Your task to perform on an android device: Do I have any events tomorrow? Image 0: 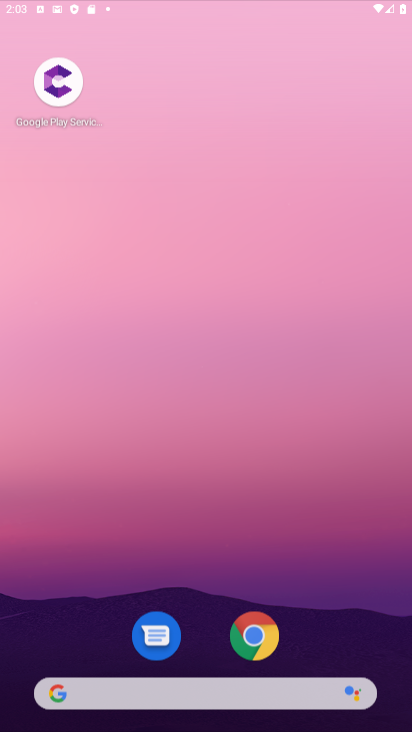
Step 0: drag from (224, 716) to (238, 28)
Your task to perform on an android device: Do I have any events tomorrow? Image 1: 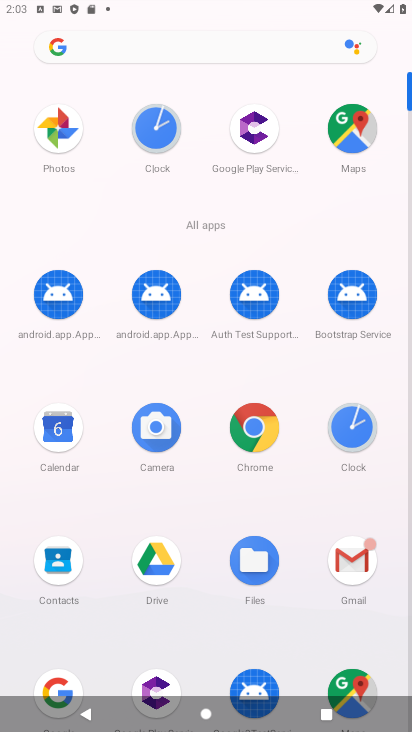
Step 1: click (362, 547)
Your task to perform on an android device: Do I have any events tomorrow? Image 2: 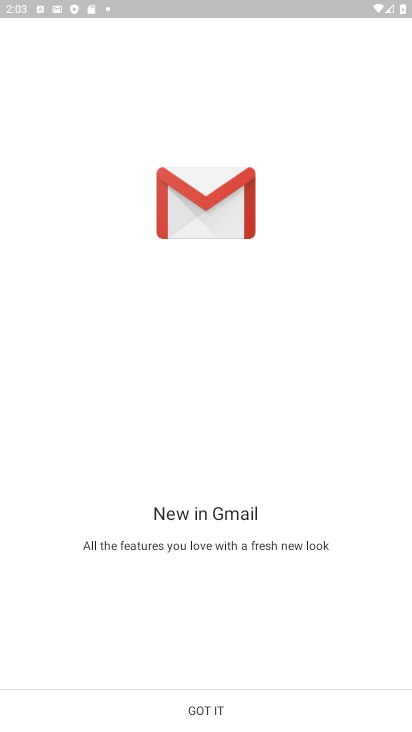
Step 2: click (217, 710)
Your task to perform on an android device: Do I have any events tomorrow? Image 3: 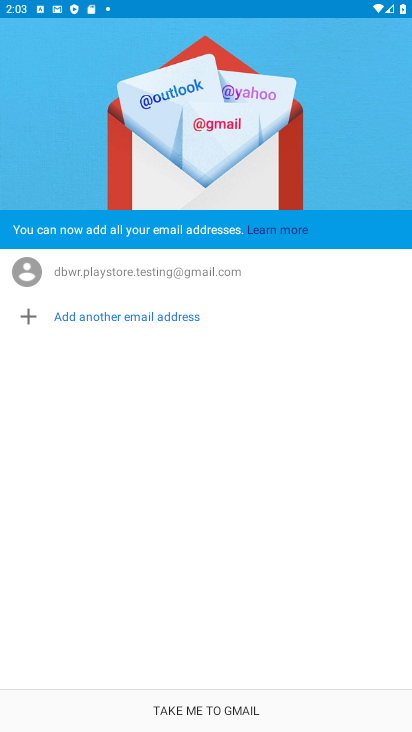
Step 3: click (217, 710)
Your task to perform on an android device: Do I have any events tomorrow? Image 4: 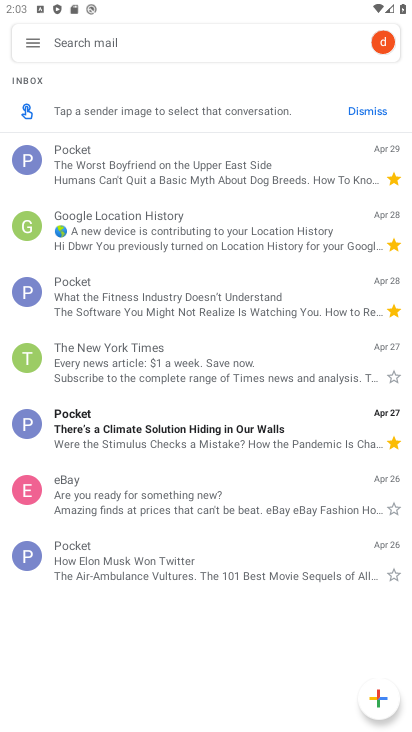
Step 4: press home button
Your task to perform on an android device: Do I have any events tomorrow? Image 5: 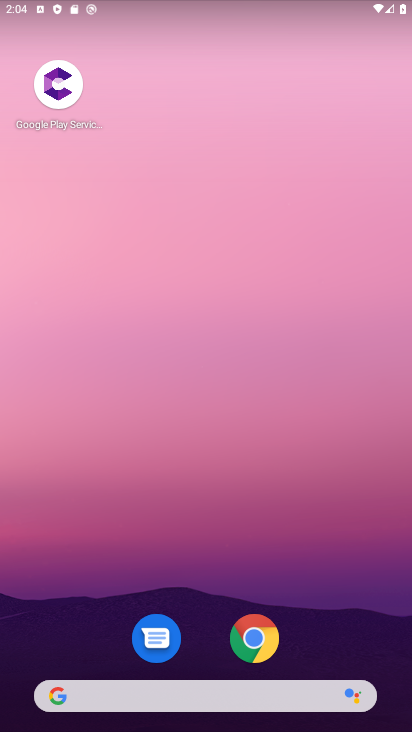
Step 5: drag from (191, 717) to (244, 34)
Your task to perform on an android device: Do I have any events tomorrow? Image 6: 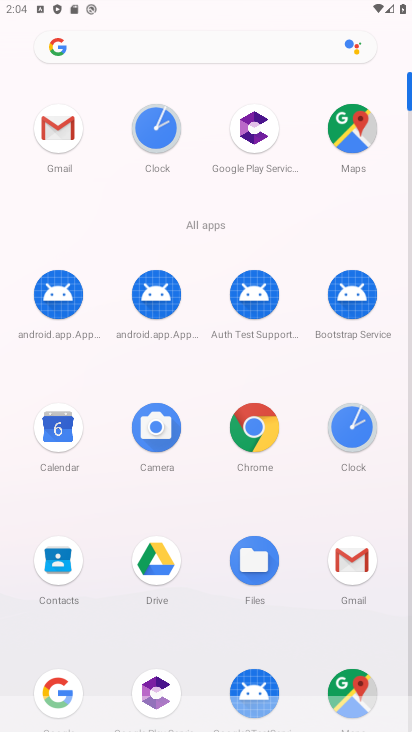
Step 6: click (55, 432)
Your task to perform on an android device: Do I have any events tomorrow? Image 7: 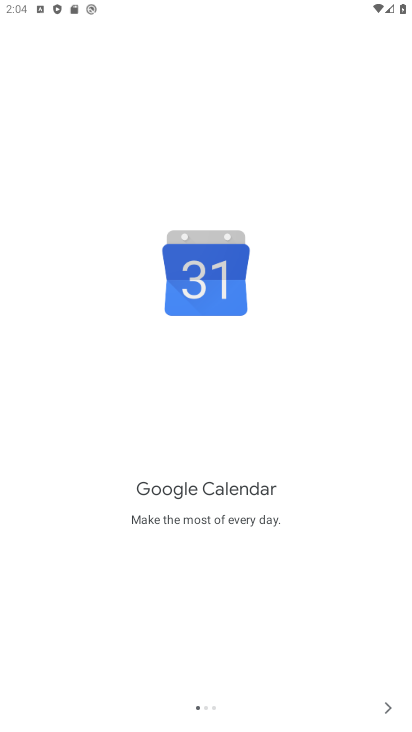
Step 7: click (393, 707)
Your task to perform on an android device: Do I have any events tomorrow? Image 8: 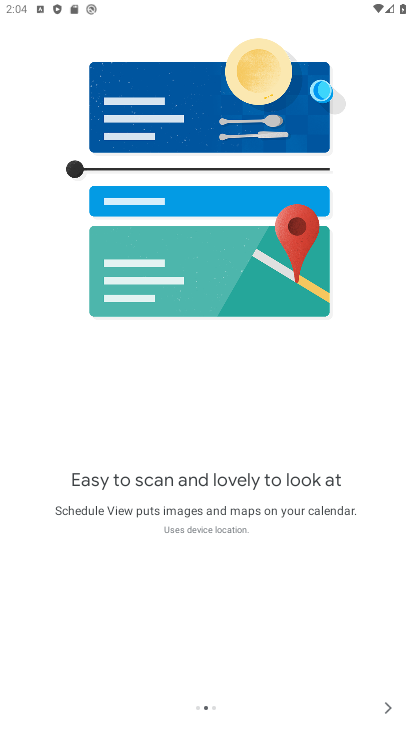
Step 8: click (393, 707)
Your task to perform on an android device: Do I have any events tomorrow? Image 9: 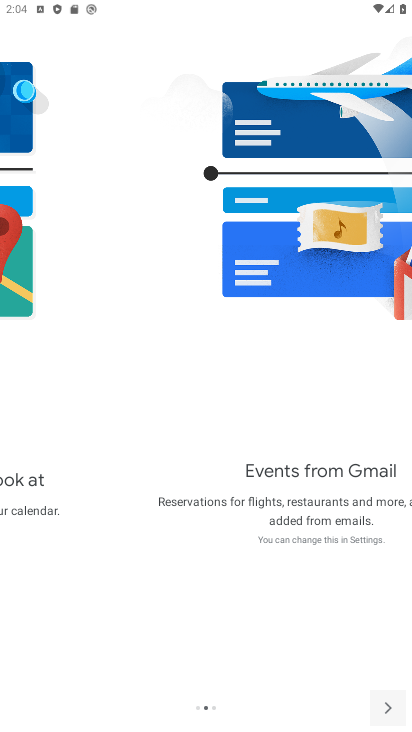
Step 9: click (393, 707)
Your task to perform on an android device: Do I have any events tomorrow? Image 10: 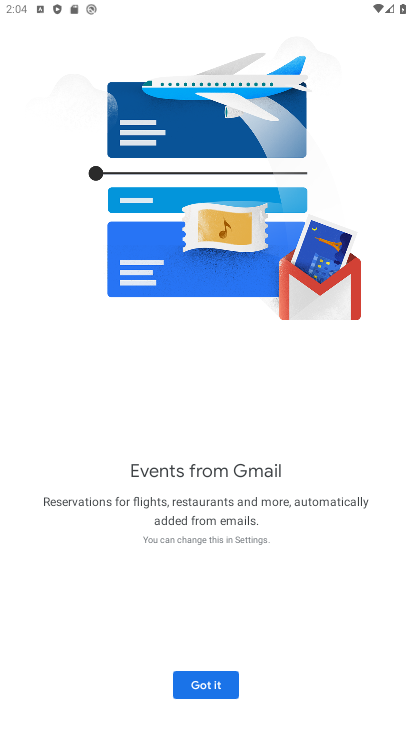
Step 10: click (202, 689)
Your task to perform on an android device: Do I have any events tomorrow? Image 11: 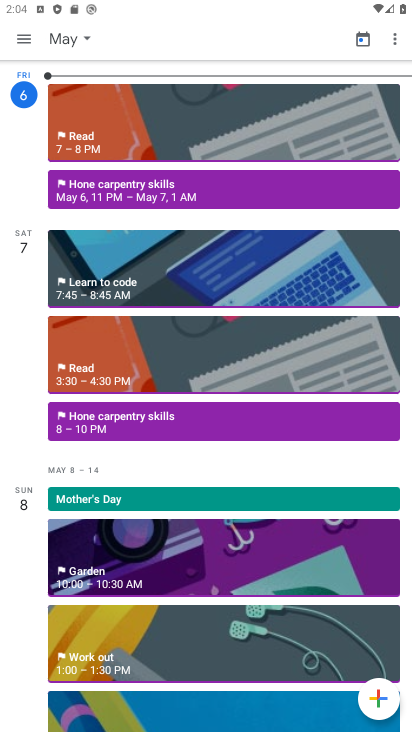
Step 11: task complete